Your task to perform on an android device: View the shopping cart on amazon.com. Search for "jbl charge 4" on amazon.com, select the first entry, add it to the cart, then select checkout. Image 0: 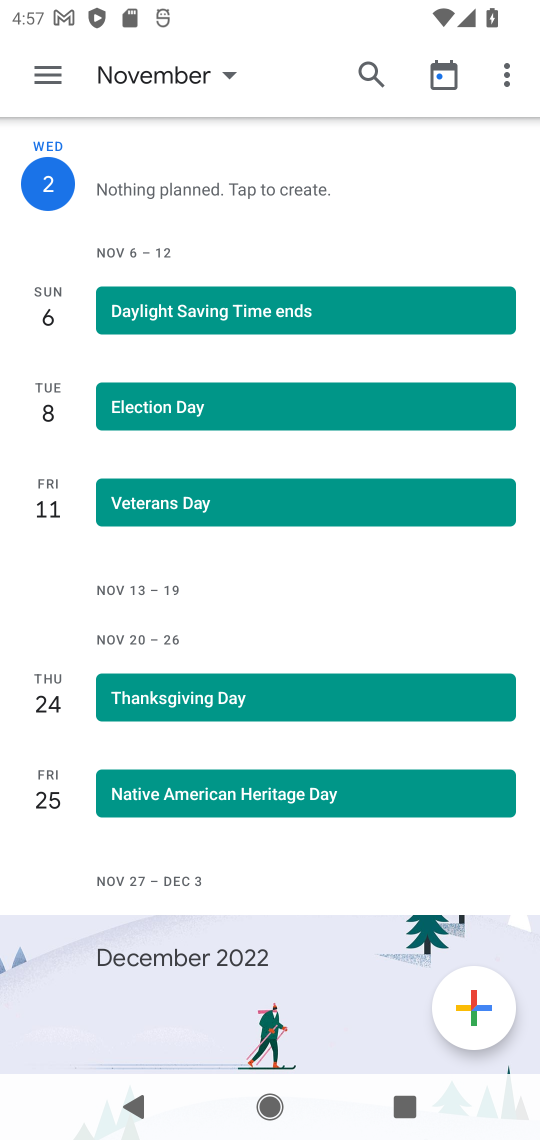
Step 0: press home button
Your task to perform on an android device: View the shopping cart on amazon.com. Search for "jbl charge 4" on amazon.com, select the first entry, add it to the cart, then select checkout. Image 1: 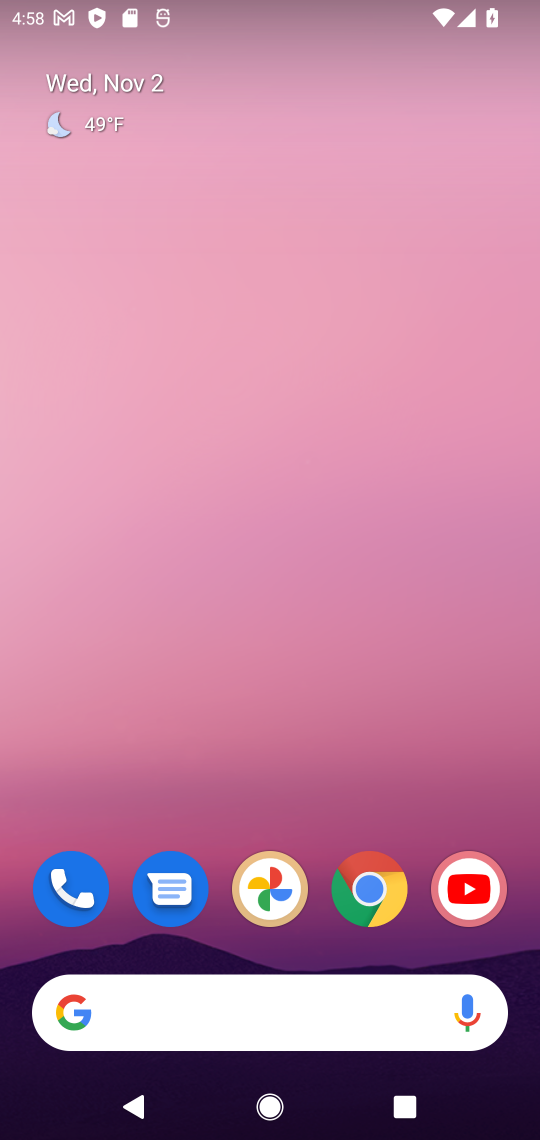
Step 1: click (354, 893)
Your task to perform on an android device: View the shopping cart on amazon.com. Search for "jbl charge 4" on amazon.com, select the first entry, add it to the cart, then select checkout. Image 2: 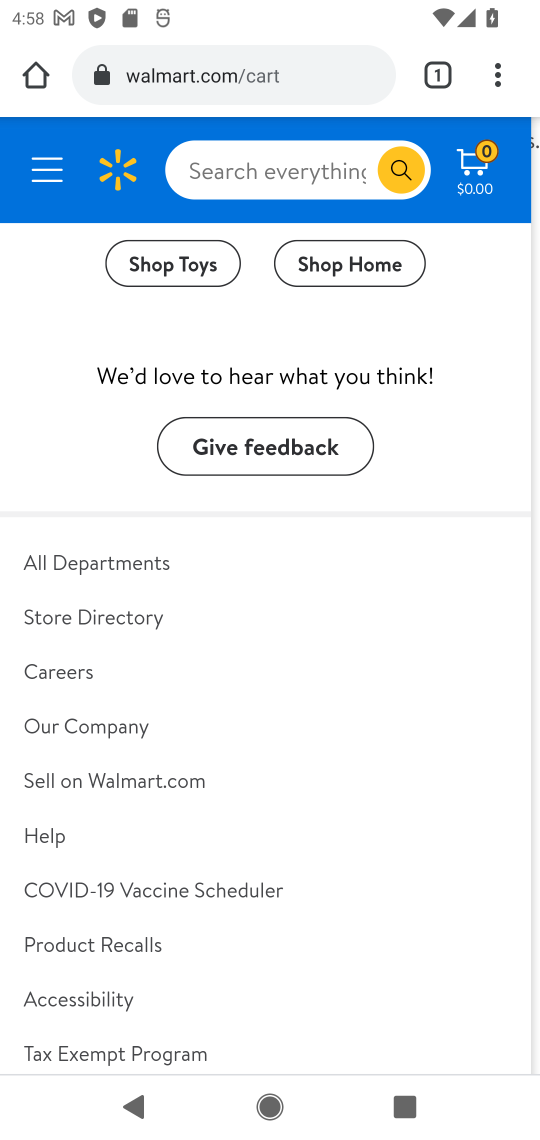
Step 2: drag from (497, 75) to (264, 154)
Your task to perform on an android device: View the shopping cart on amazon.com. Search for "jbl charge 4" on amazon.com, select the first entry, add it to the cart, then select checkout. Image 3: 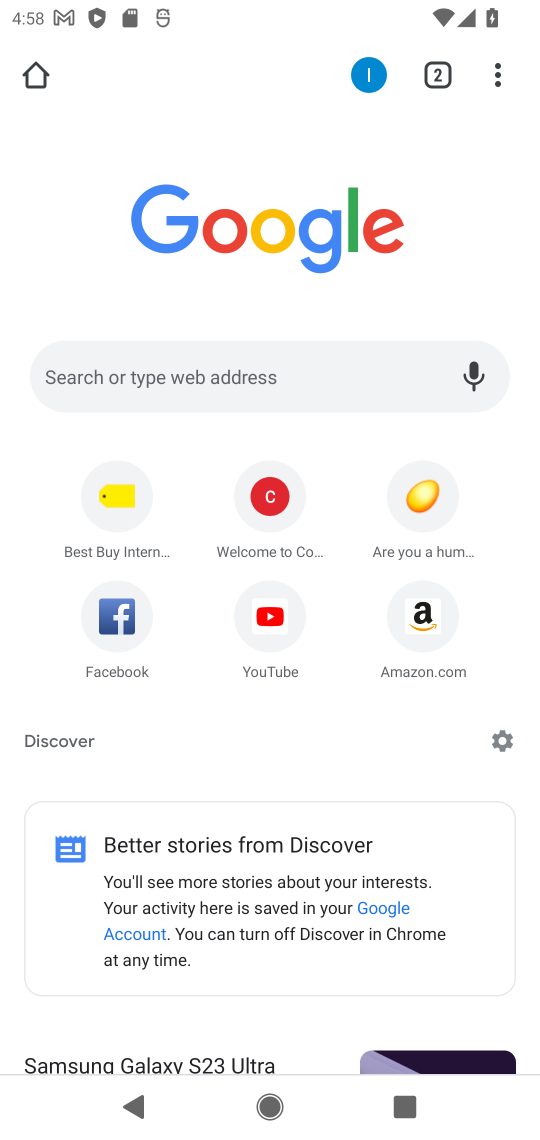
Step 3: click (430, 625)
Your task to perform on an android device: View the shopping cart on amazon.com. Search for "jbl charge 4" on amazon.com, select the first entry, add it to the cart, then select checkout. Image 4: 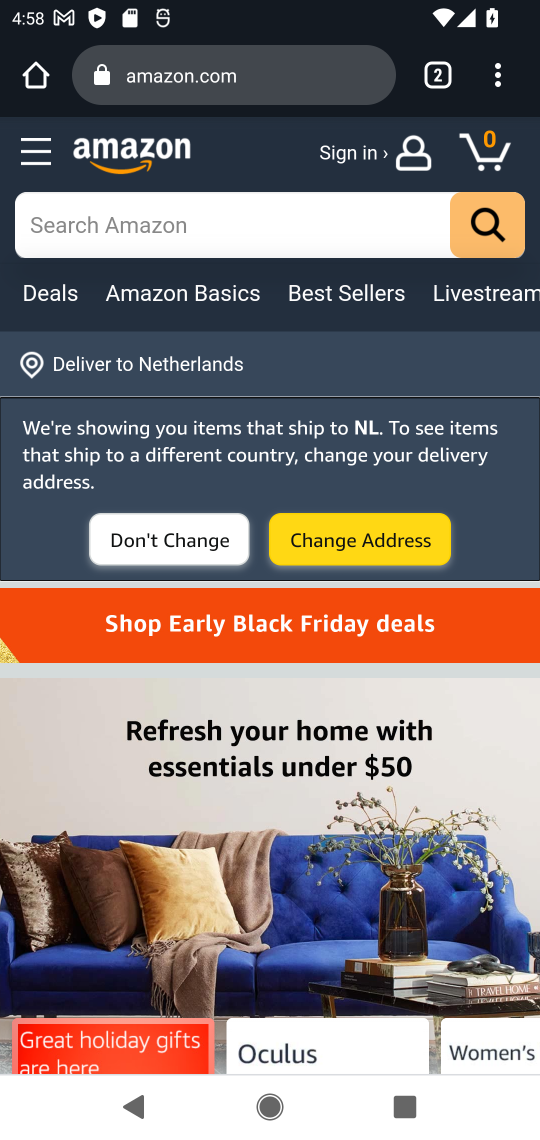
Step 4: click (192, 228)
Your task to perform on an android device: View the shopping cart on amazon.com. Search for "jbl charge 4" on amazon.com, select the first entry, add it to the cart, then select checkout. Image 5: 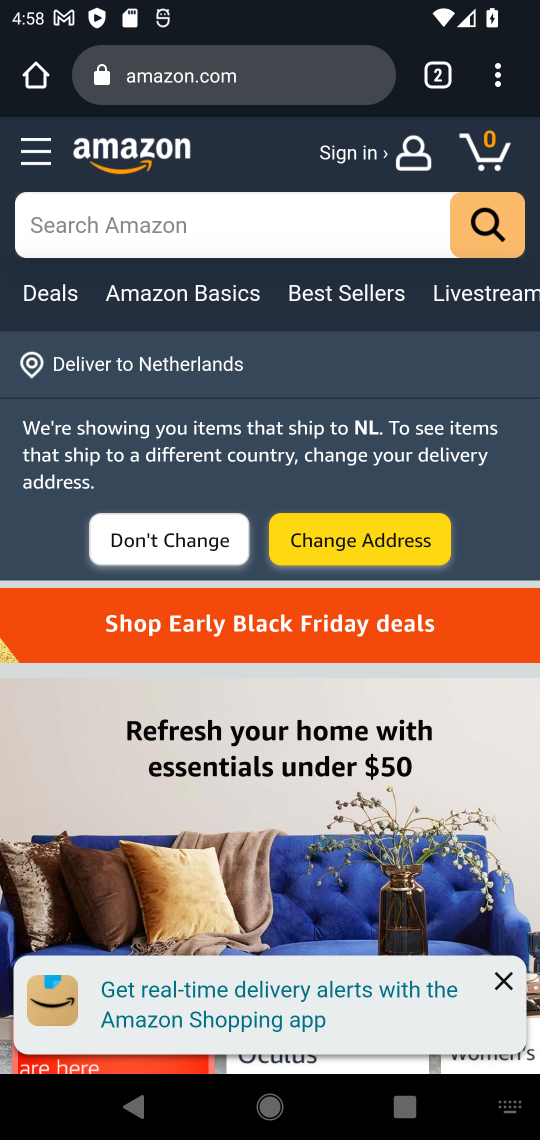
Step 5: type "jbl charge 4"
Your task to perform on an android device: View the shopping cart on amazon.com. Search for "jbl charge 4" on amazon.com, select the first entry, add it to the cart, then select checkout. Image 6: 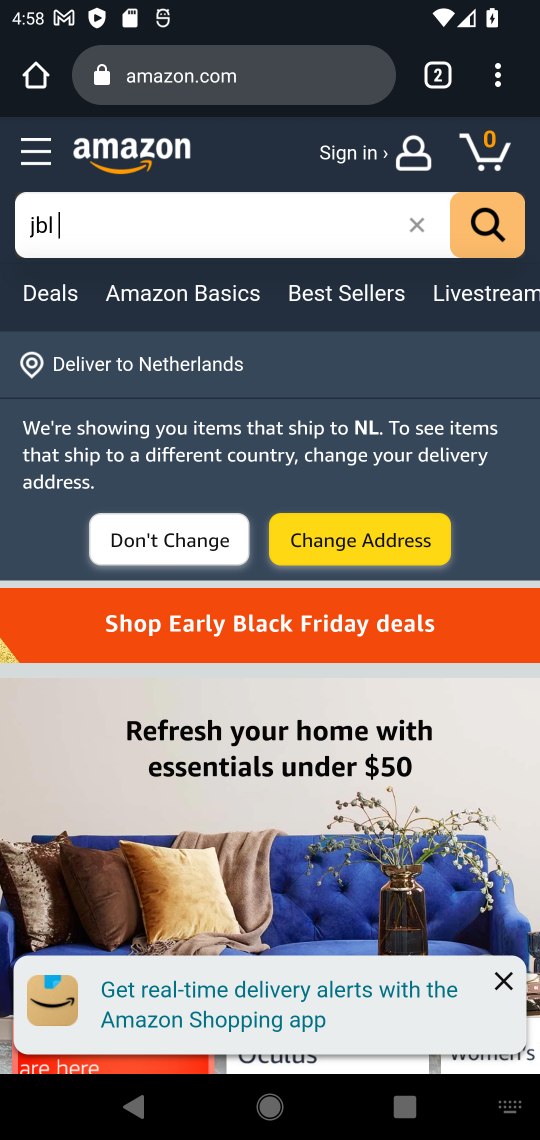
Step 6: press enter
Your task to perform on an android device: View the shopping cart on amazon.com. Search for "jbl charge 4" on amazon.com, select the first entry, add it to the cart, then select checkout. Image 7: 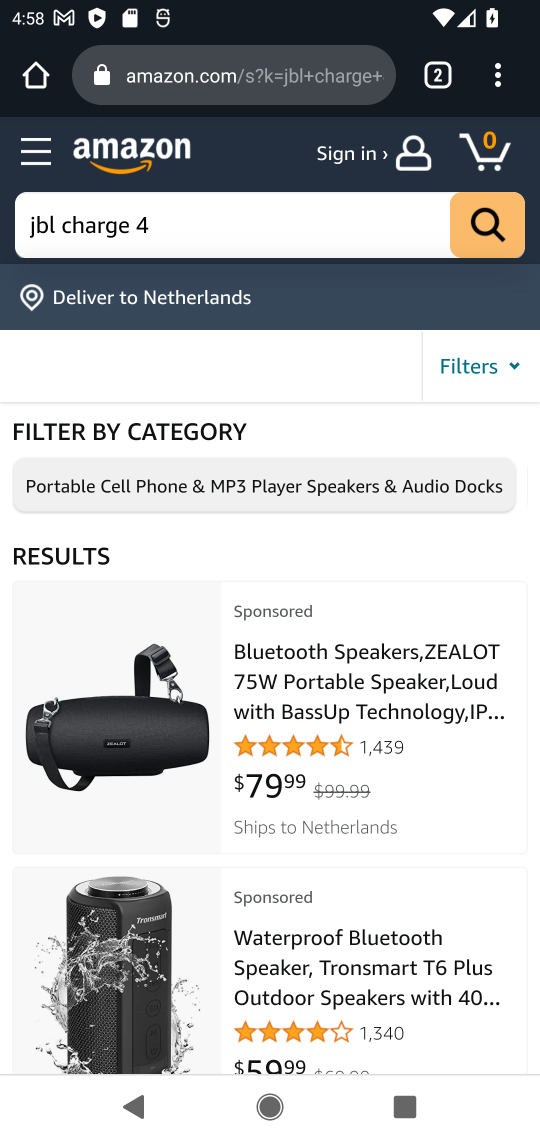
Step 7: drag from (299, 920) to (367, 566)
Your task to perform on an android device: View the shopping cart on amazon.com. Search for "jbl charge 4" on amazon.com, select the first entry, add it to the cart, then select checkout. Image 8: 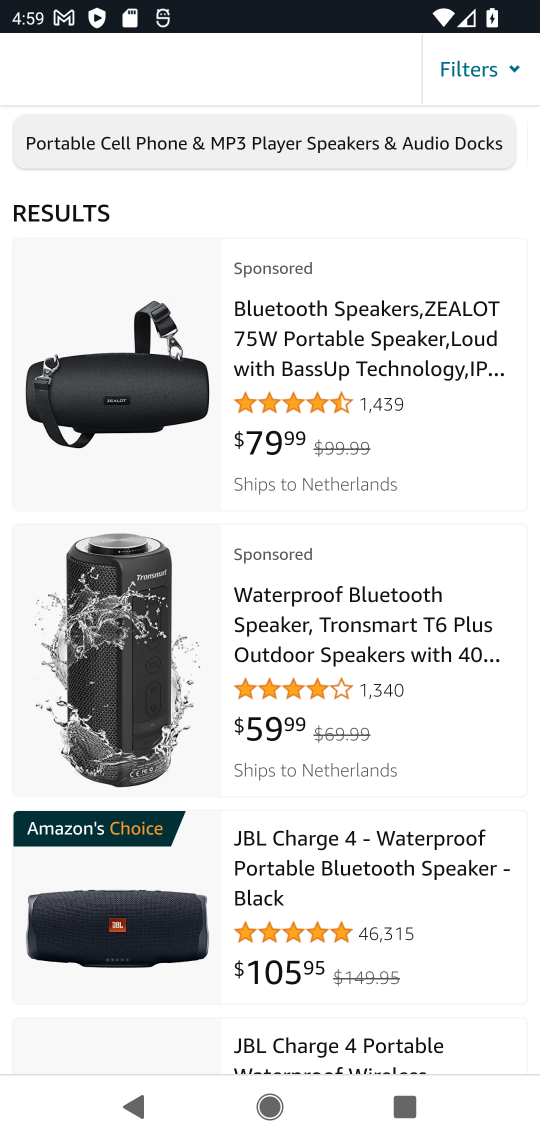
Step 8: click (346, 318)
Your task to perform on an android device: View the shopping cart on amazon.com. Search for "jbl charge 4" on amazon.com, select the first entry, add it to the cart, then select checkout. Image 9: 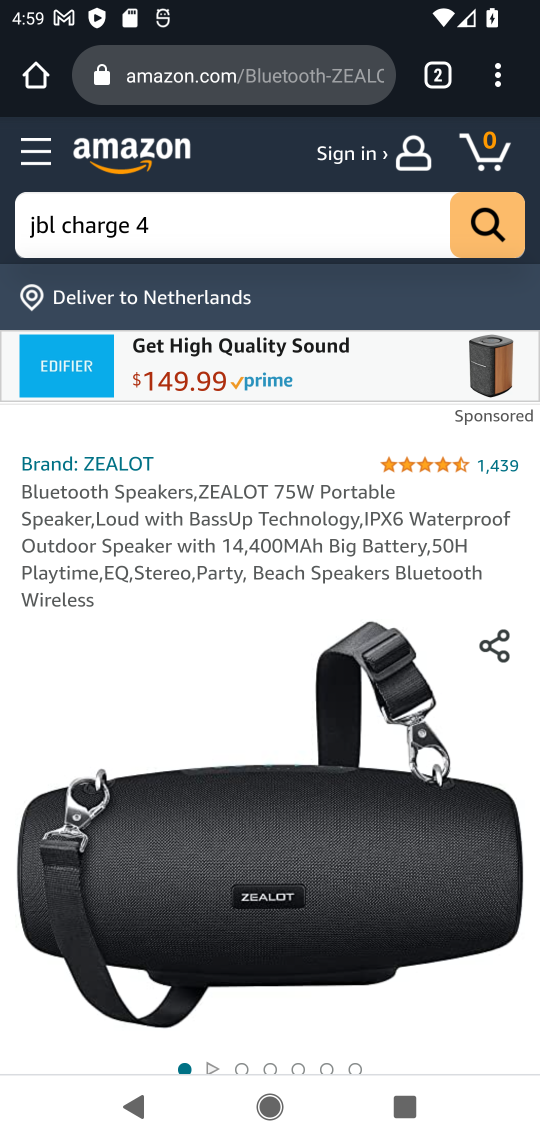
Step 9: drag from (203, 977) to (307, 319)
Your task to perform on an android device: View the shopping cart on amazon.com. Search for "jbl charge 4" on amazon.com, select the first entry, add it to the cart, then select checkout. Image 10: 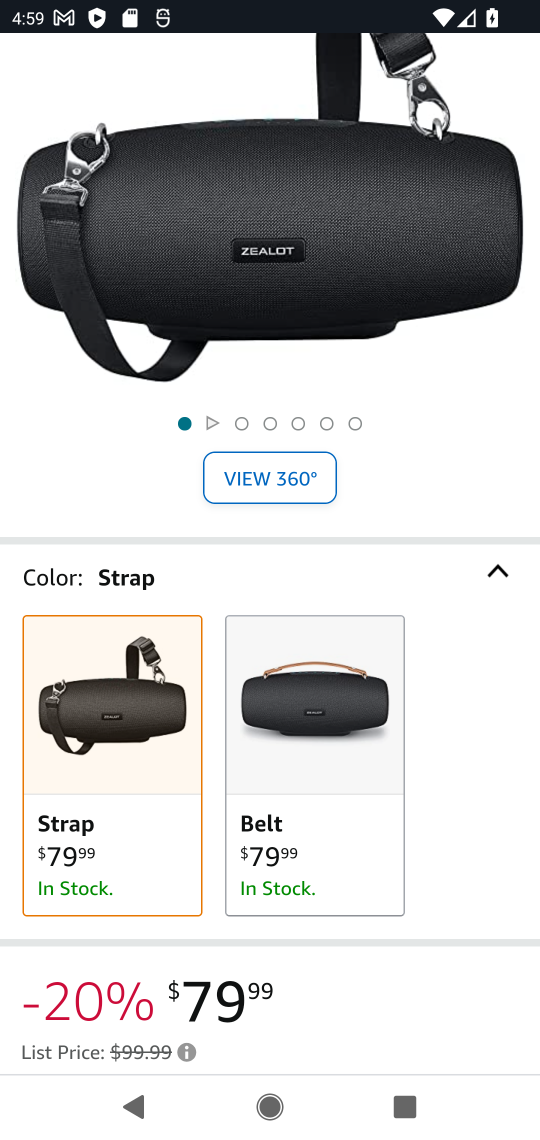
Step 10: drag from (335, 937) to (377, 344)
Your task to perform on an android device: View the shopping cart on amazon.com. Search for "jbl charge 4" on amazon.com, select the first entry, add it to the cart, then select checkout. Image 11: 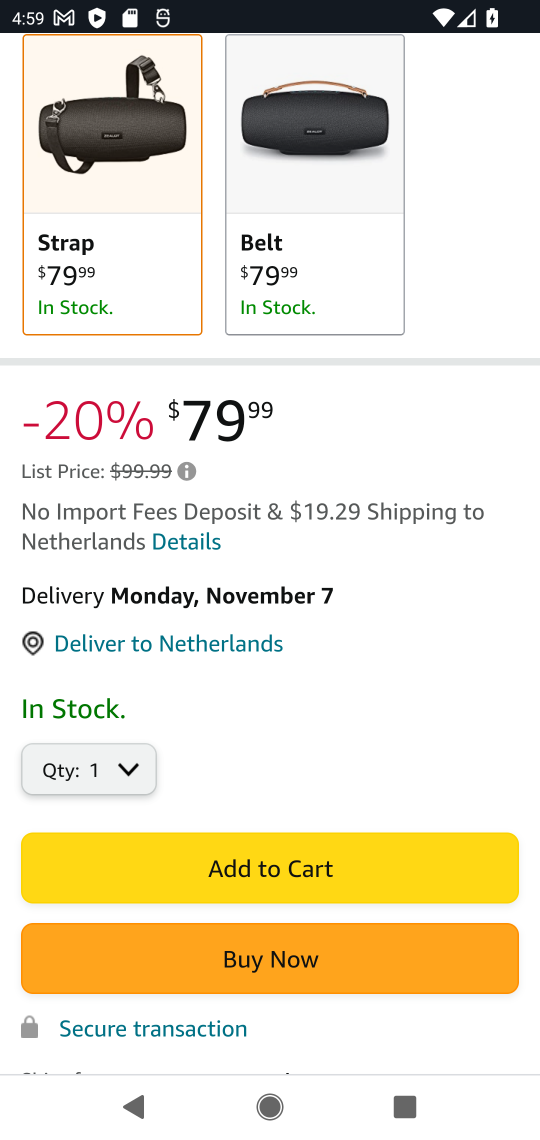
Step 11: click (279, 869)
Your task to perform on an android device: View the shopping cart on amazon.com. Search for "jbl charge 4" on amazon.com, select the first entry, add it to the cart, then select checkout. Image 12: 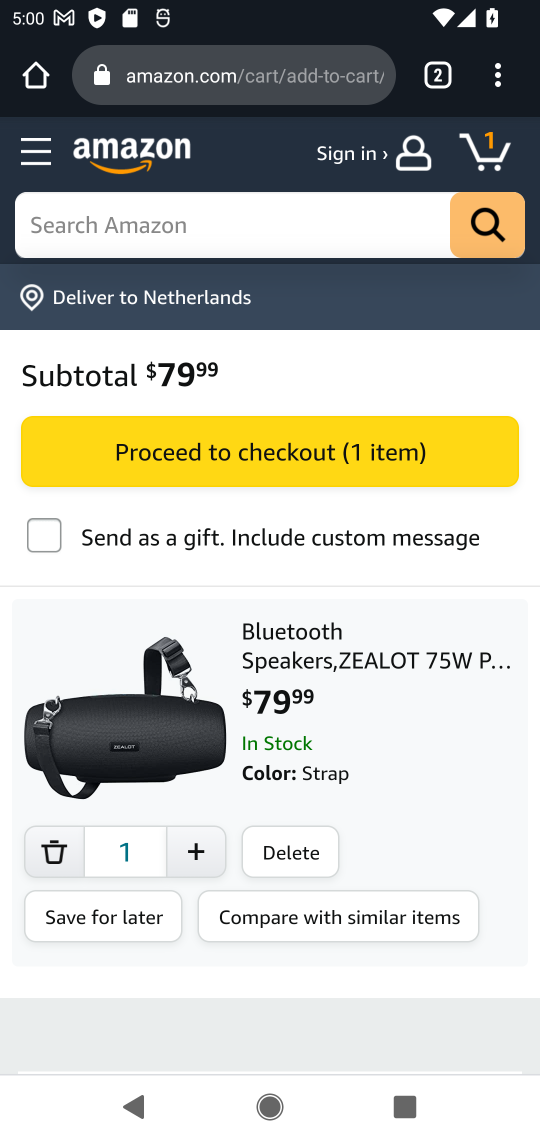
Step 12: click (272, 449)
Your task to perform on an android device: View the shopping cart on amazon.com. Search for "jbl charge 4" on amazon.com, select the first entry, add it to the cart, then select checkout. Image 13: 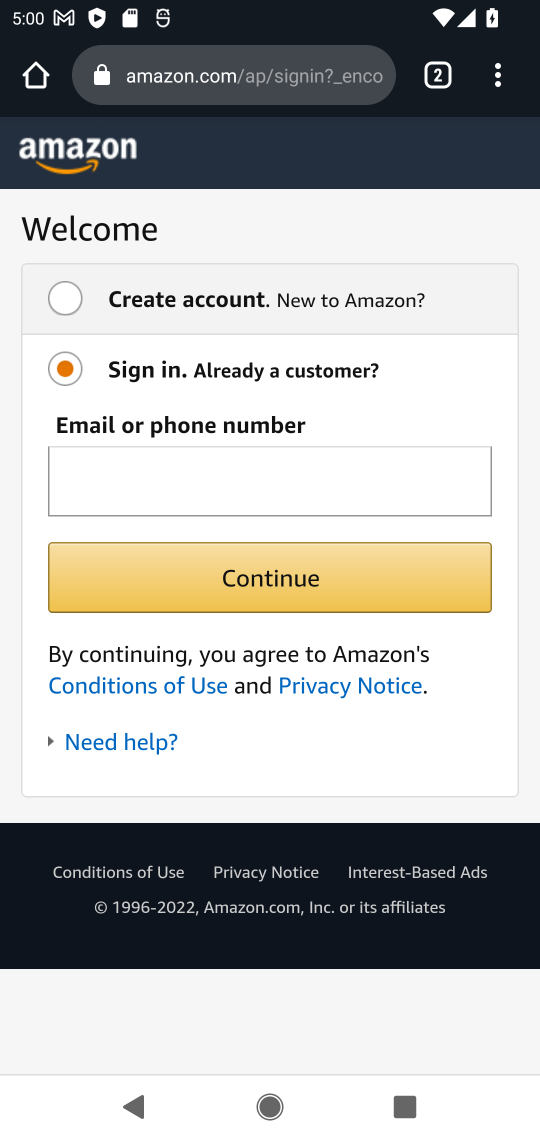
Step 13: task complete